Your task to perform on an android device: delete a single message in the gmail app Image 0: 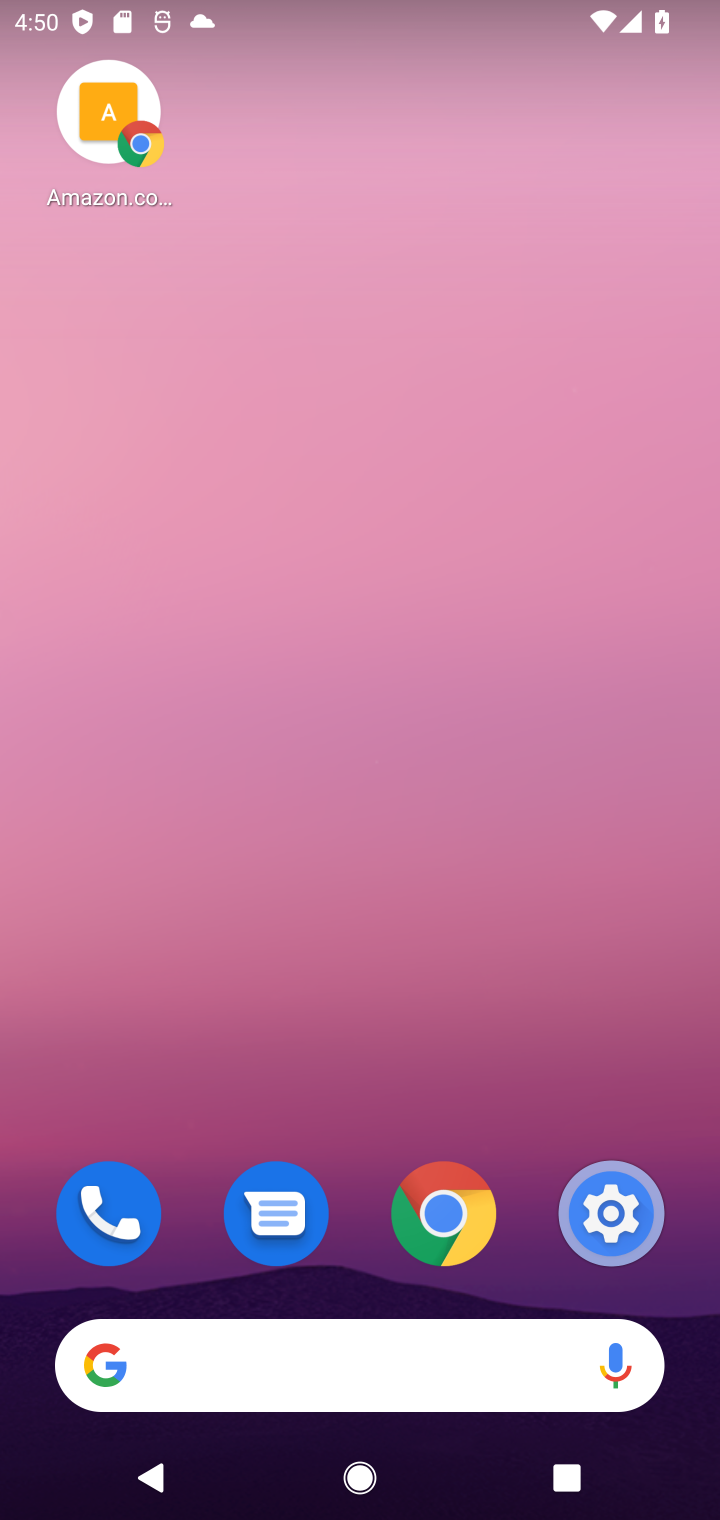
Step 0: drag from (354, 1368) to (397, 278)
Your task to perform on an android device: delete a single message in the gmail app Image 1: 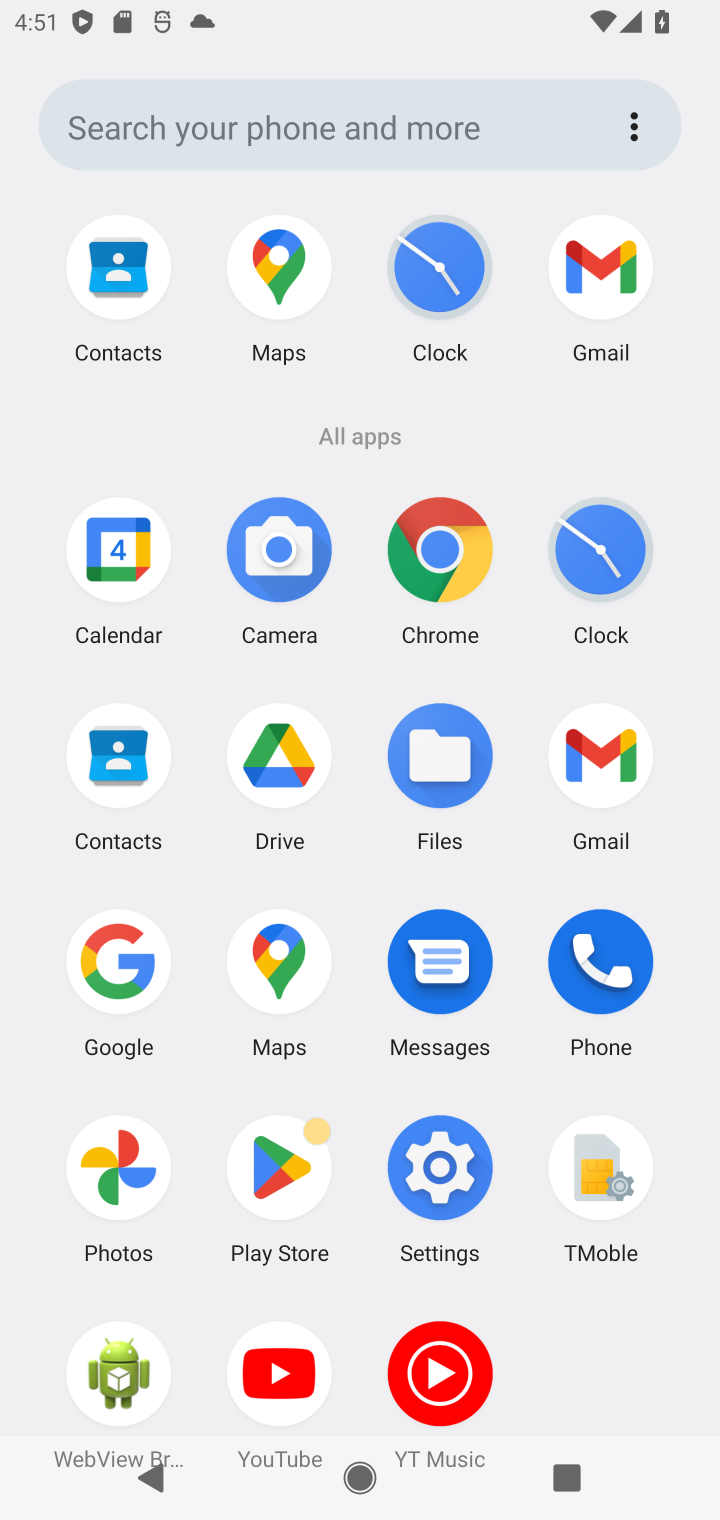
Step 1: click (593, 271)
Your task to perform on an android device: delete a single message in the gmail app Image 2: 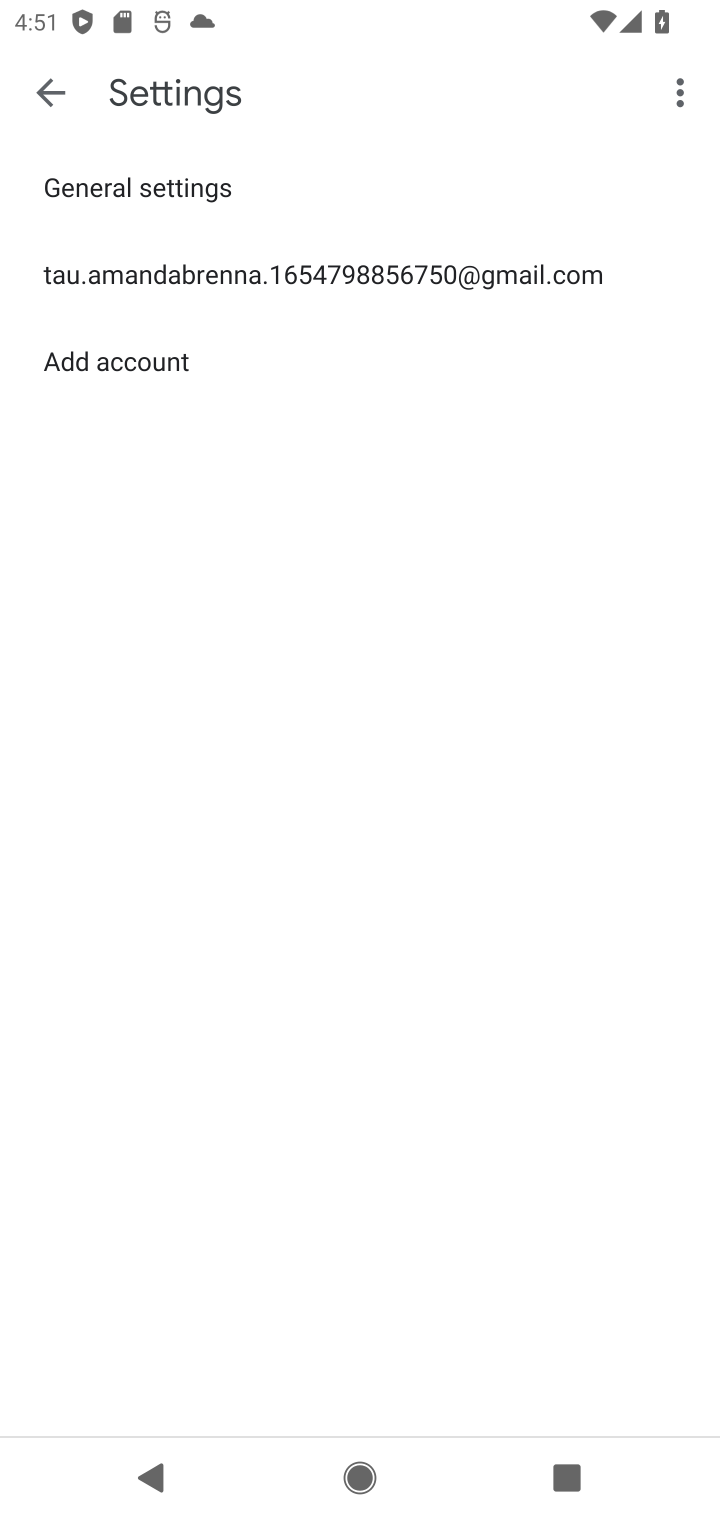
Step 2: press back button
Your task to perform on an android device: delete a single message in the gmail app Image 3: 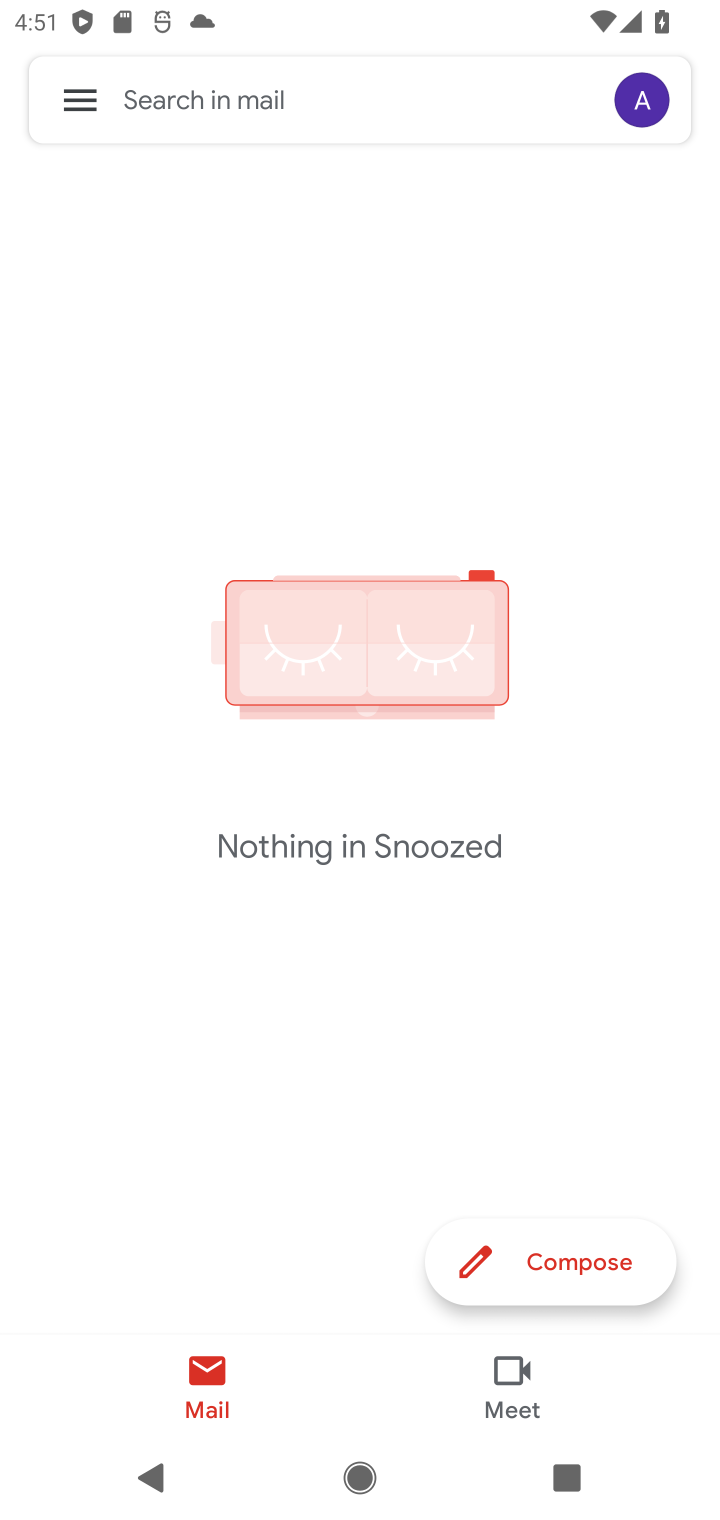
Step 3: click (73, 112)
Your task to perform on an android device: delete a single message in the gmail app Image 4: 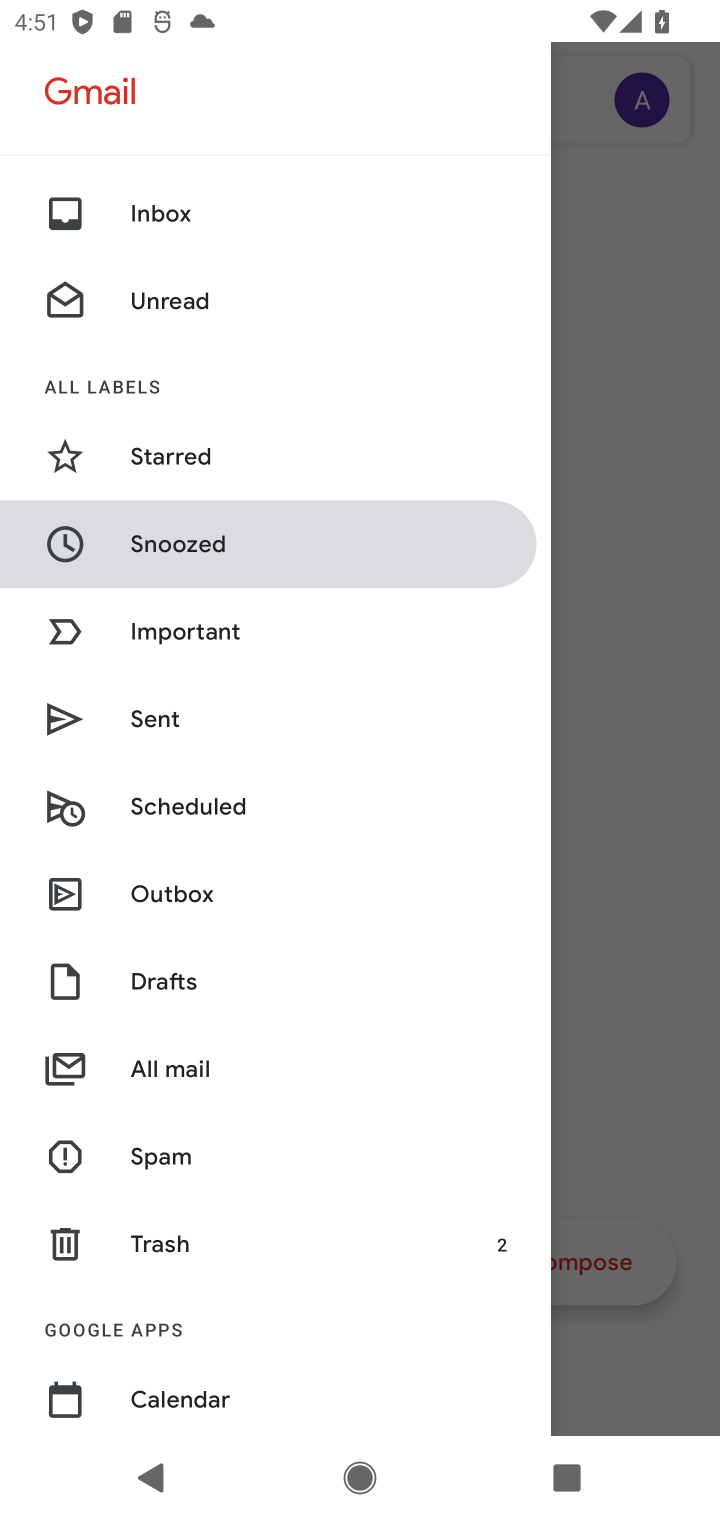
Step 4: click (157, 236)
Your task to perform on an android device: delete a single message in the gmail app Image 5: 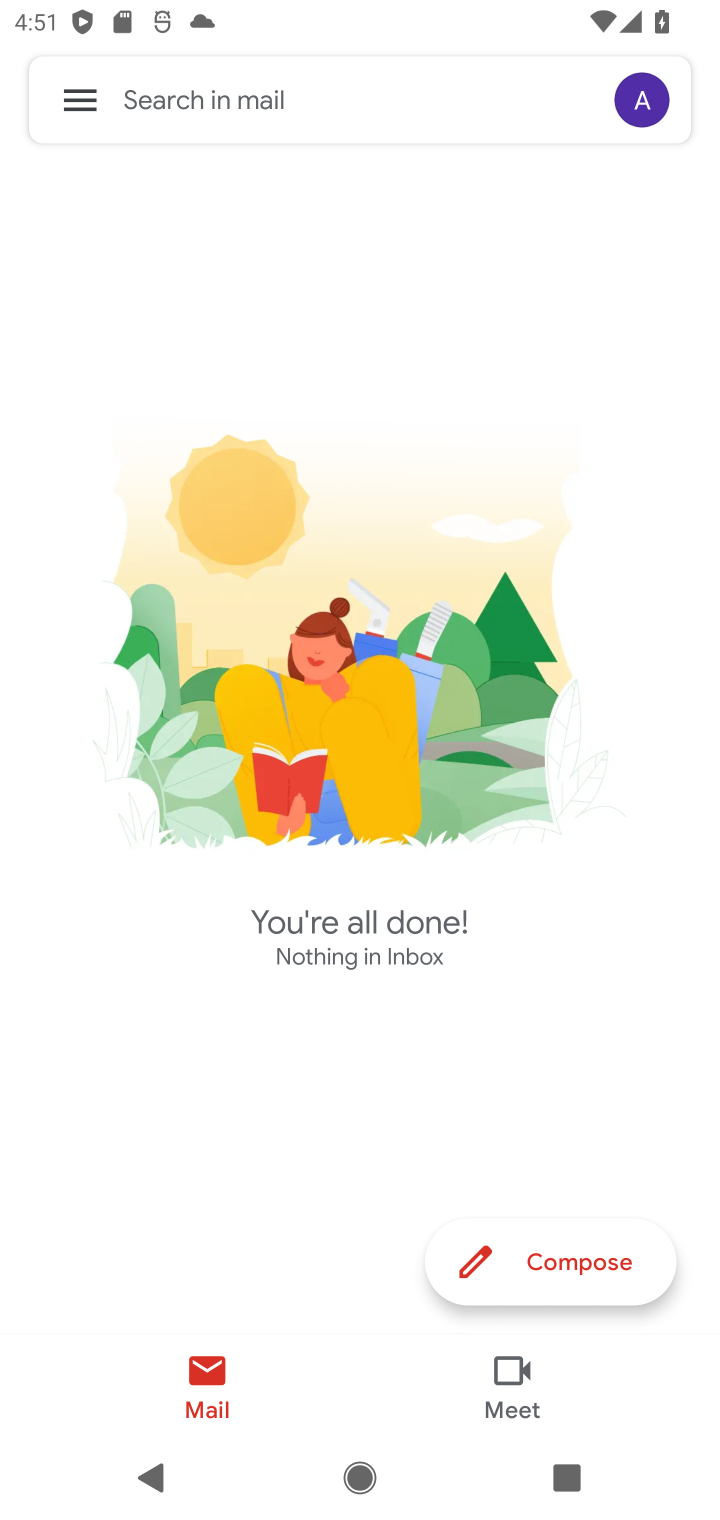
Step 5: click (92, 102)
Your task to perform on an android device: delete a single message in the gmail app Image 6: 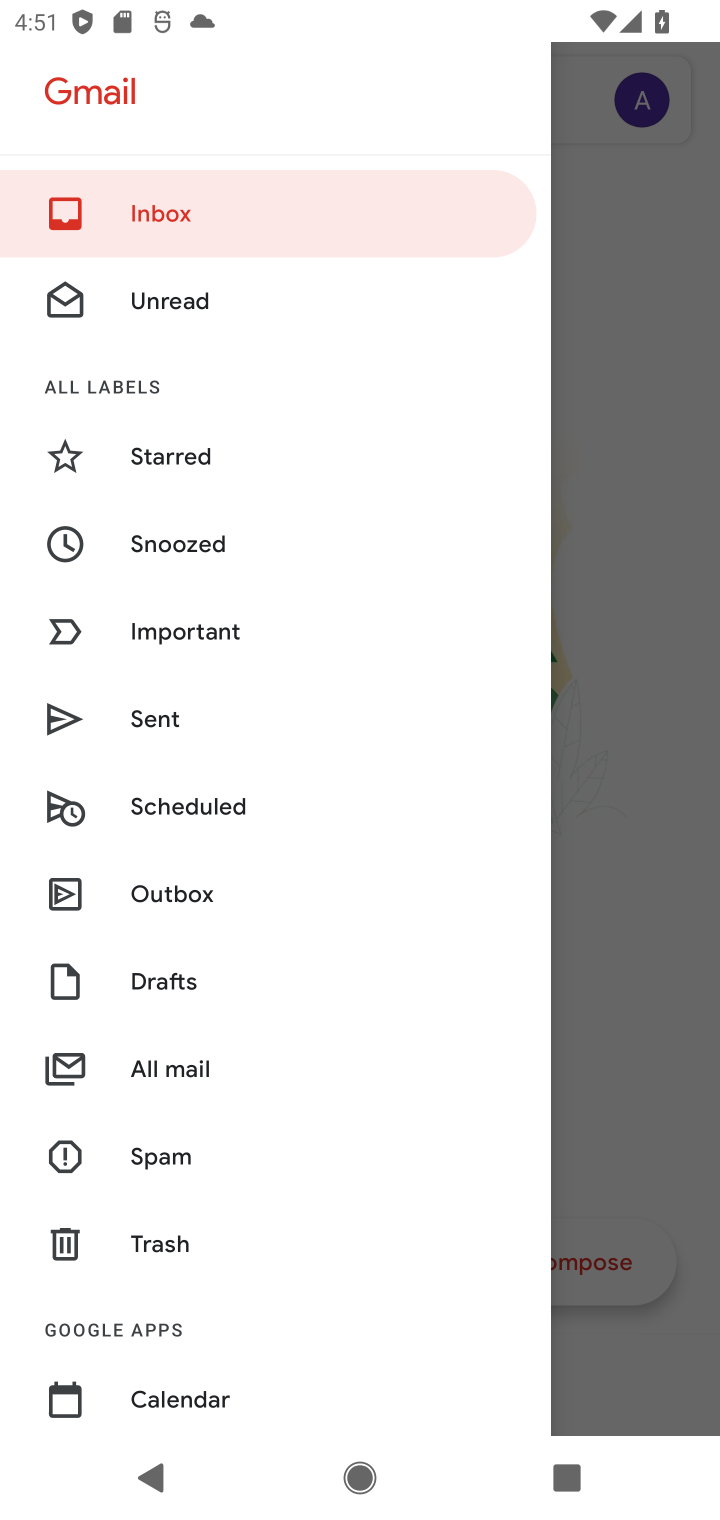
Step 6: click (210, 474)
Your task to perform on an android device: delete a single message in the gmail app Image 7: 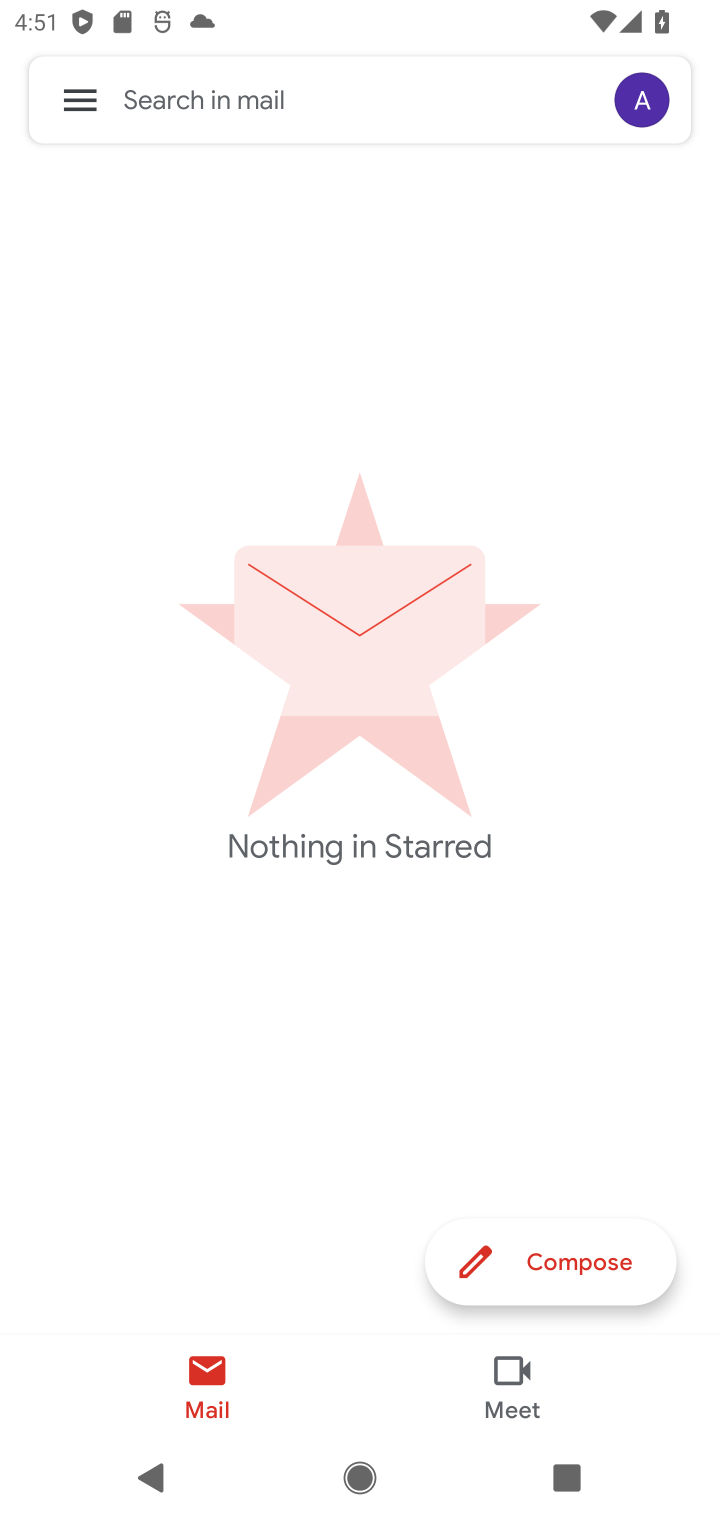
Step 7: click (95, 84)
Your task to perform on an android device: delete a single message in the gmail app Image 8: 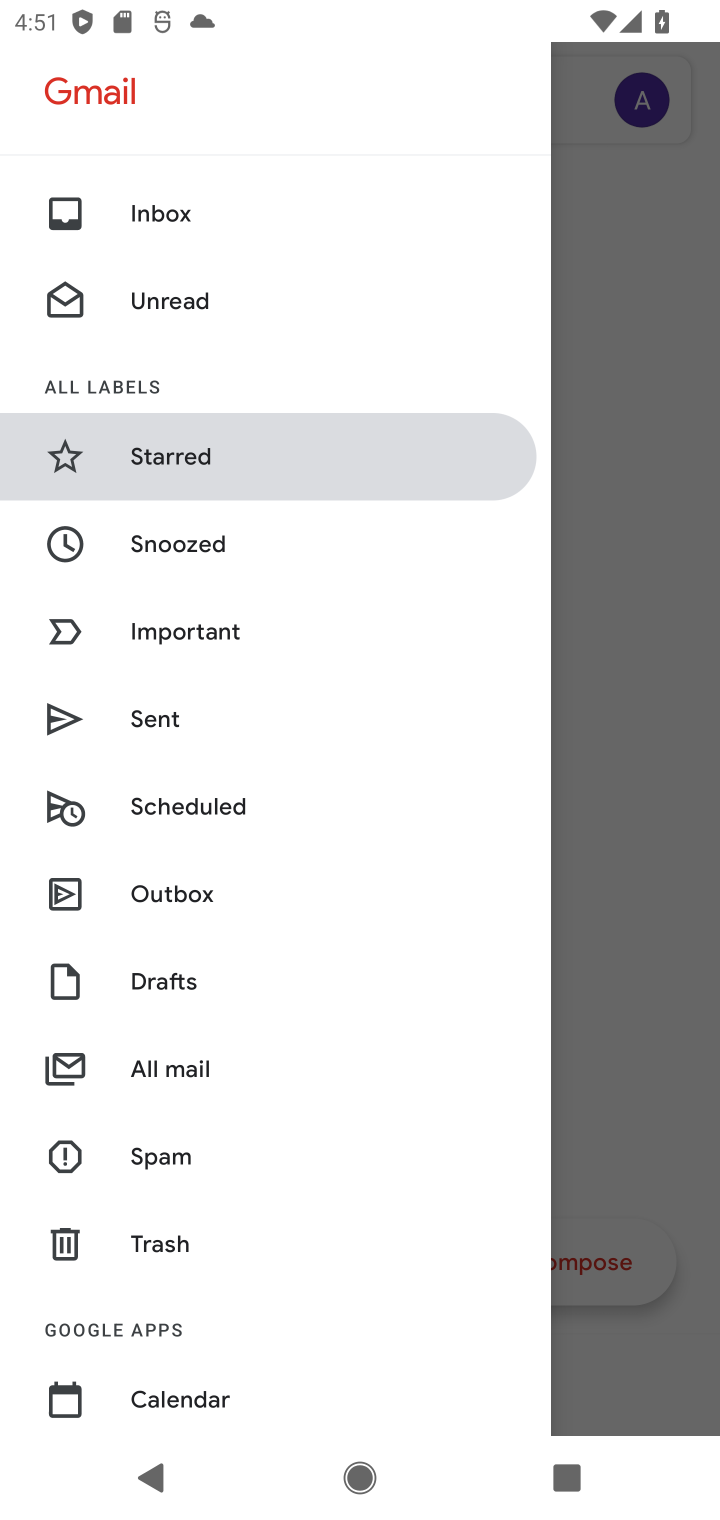
Step 8: click (193, 295)
Your task to perform on an android device: delete a single message in the gmail app Image 9: 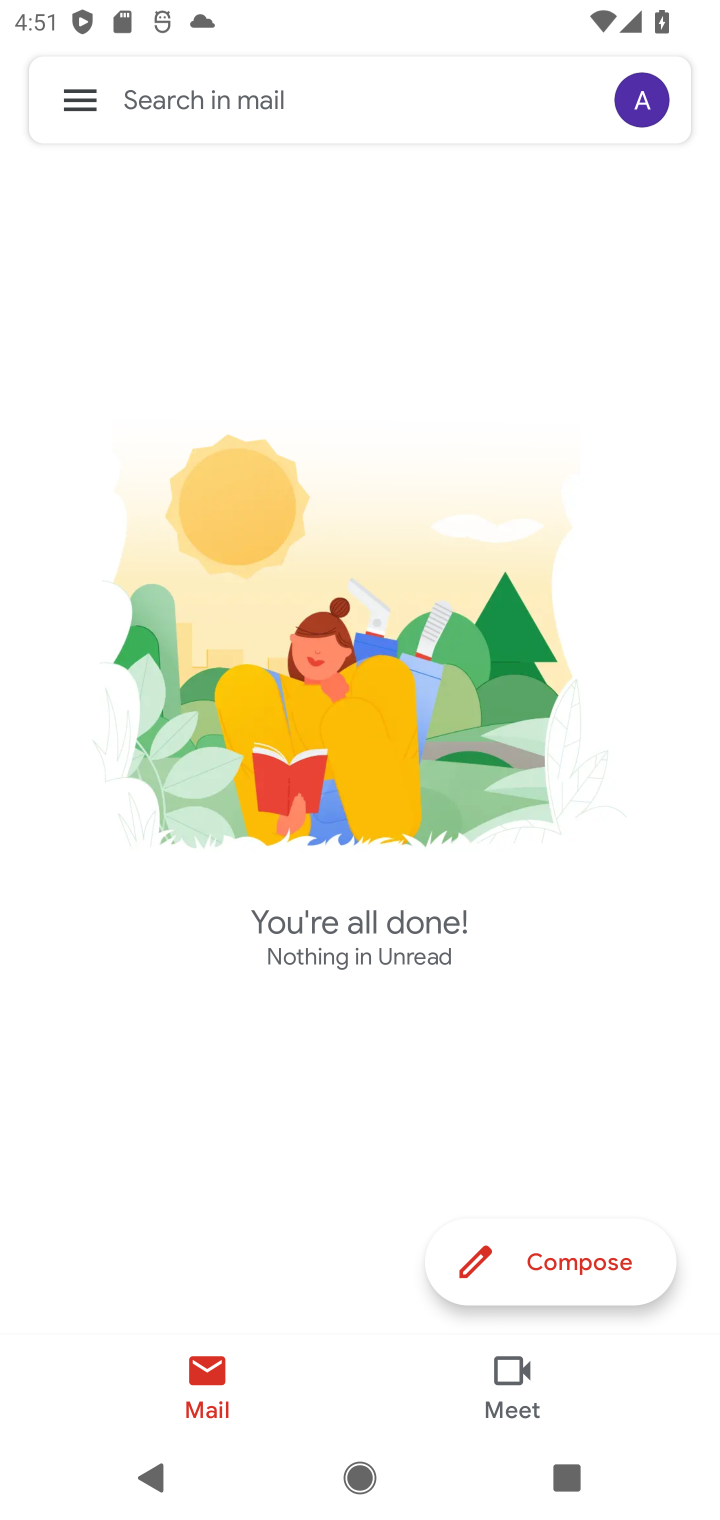
Step 9: click (83, 105)
Your task to perform on an android device: delete a single message in the gmail app Image 10: 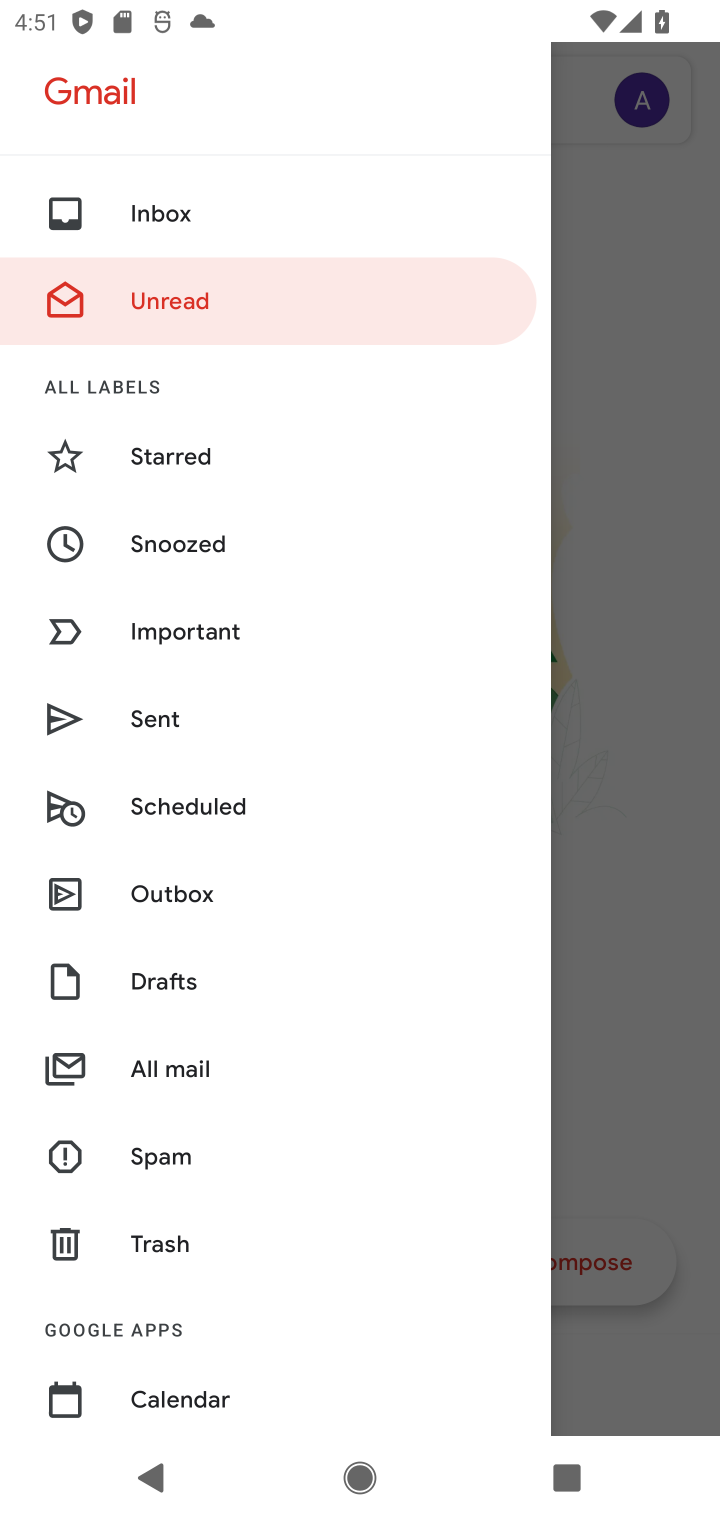
Step 10: click (184, 553)
Your task to perform on an android device: delete a single message in the gmail app Image 11: 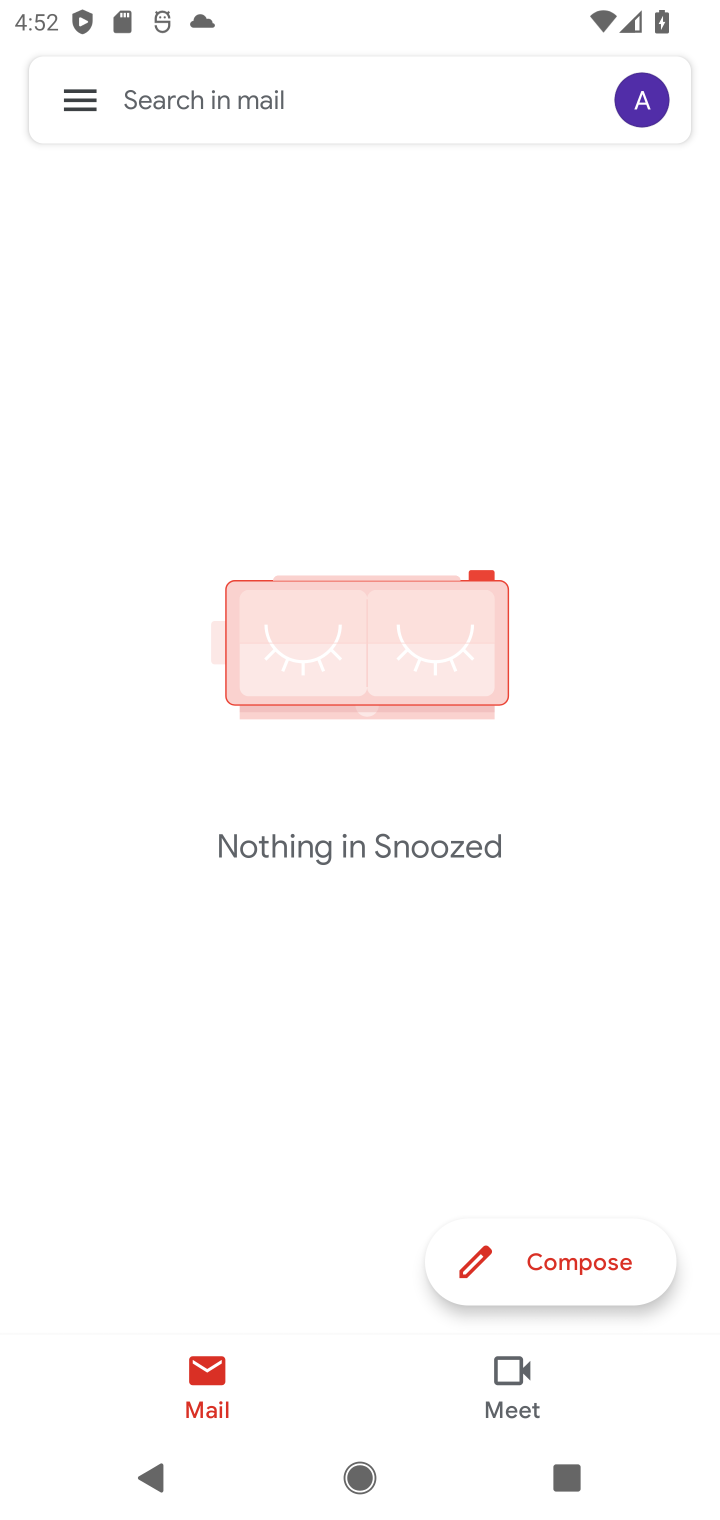
Step 11: click (89, 100)
Your task to perform on an android device: delete a single message in the gmail app Image 12: 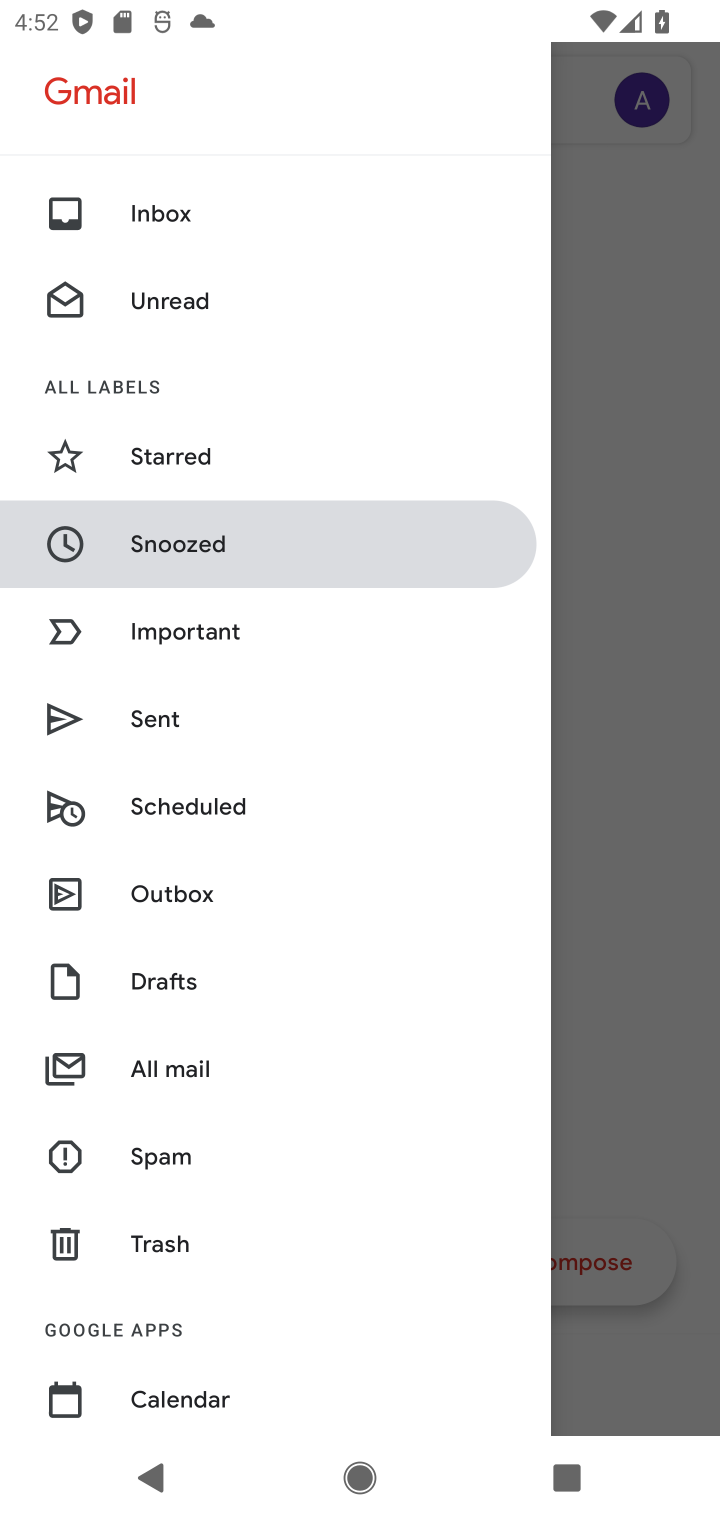
Step 12: click (224, 641)
Your task to perform on an android device: delete a single message in the gmail app Image 13: 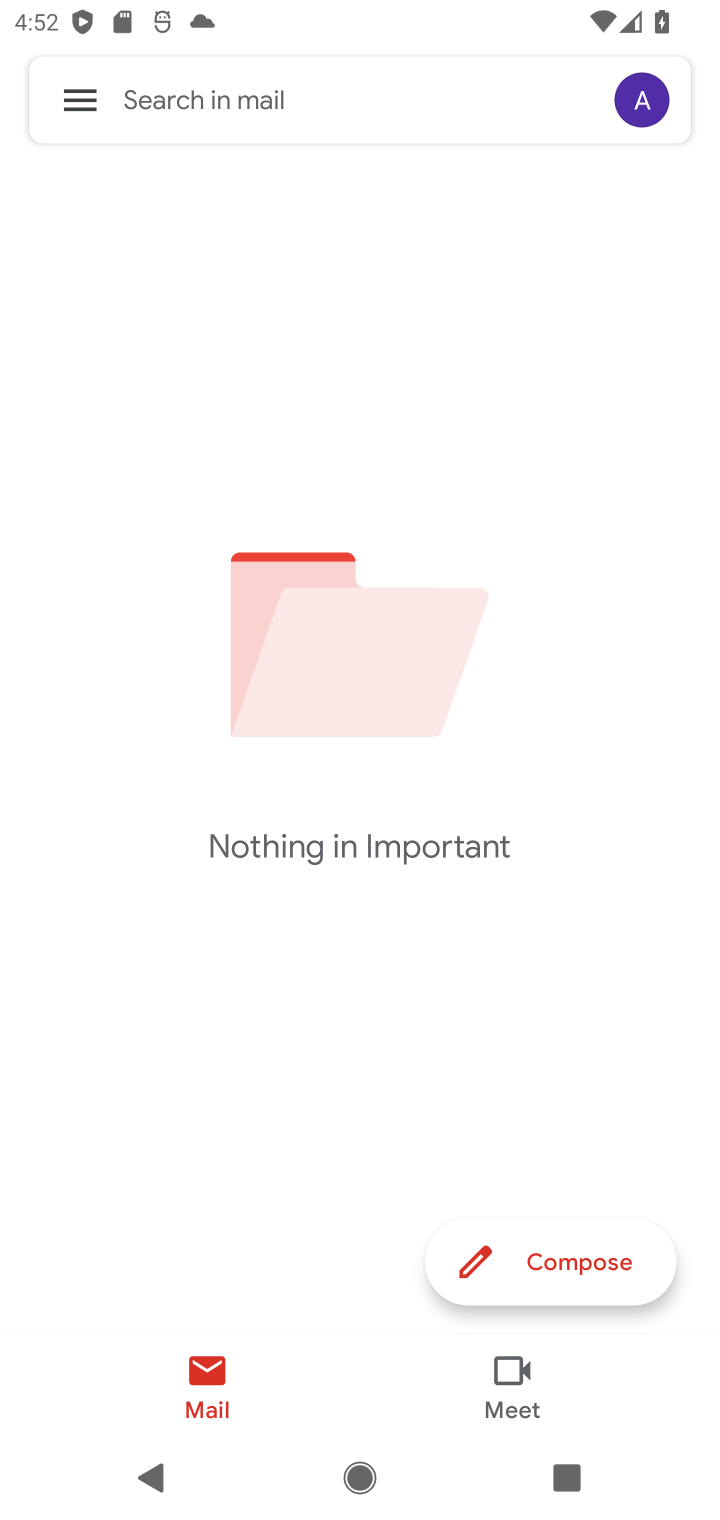
Step 13: click (74, 102)
Your task to perform on an android device: delete a single message in the gmail app Image 14: 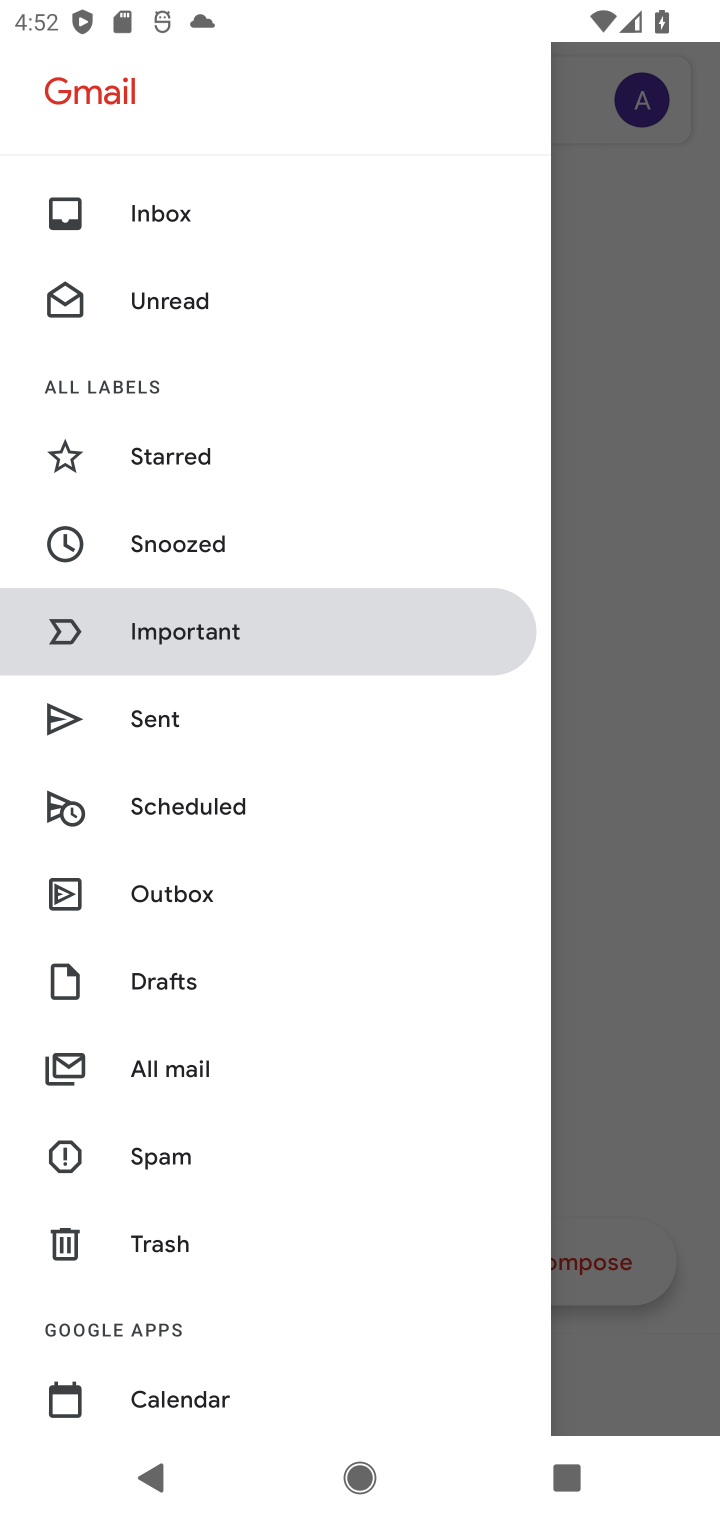
Step 14: click (180, 713)
Your task to perform on an android device: delete a single message in the gmail app Image 15: 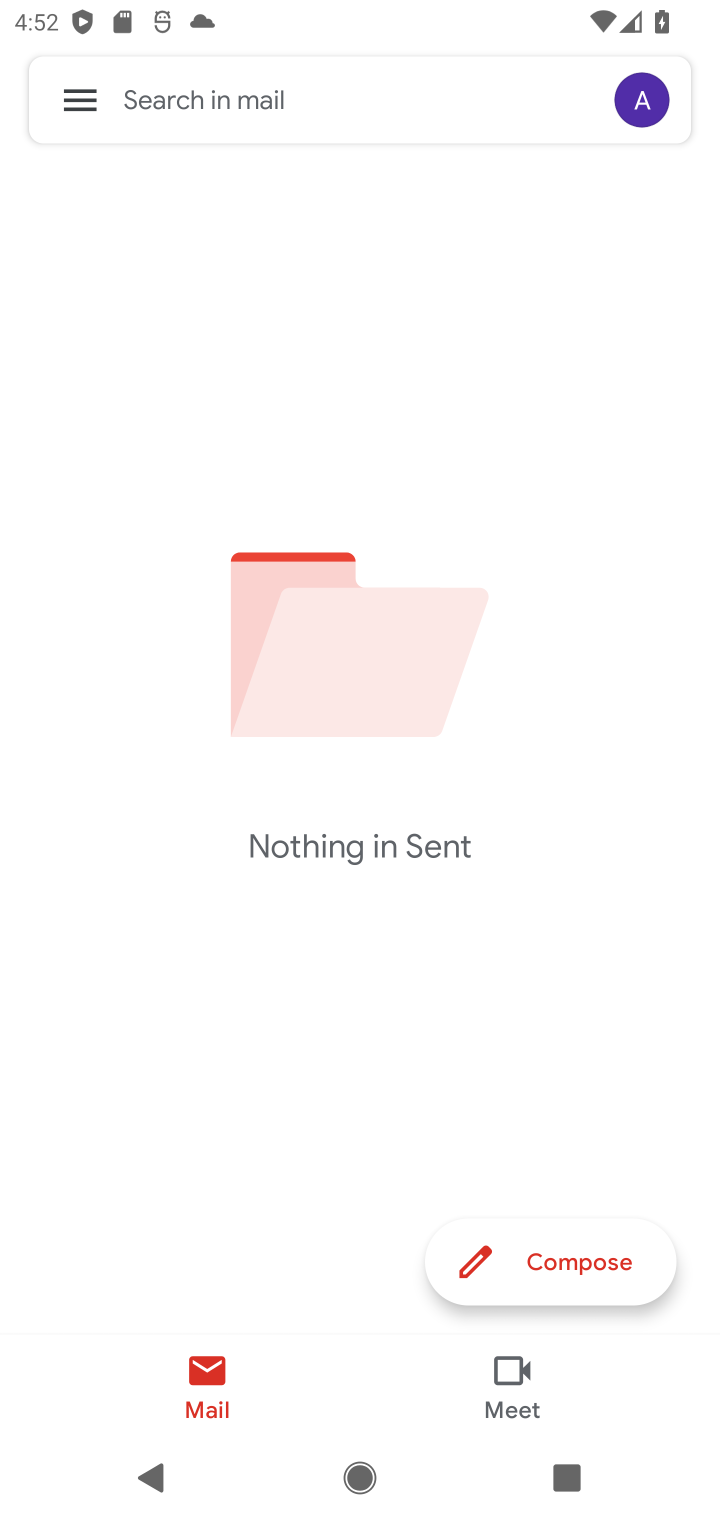
Step 15: click (67, 118)
Your task to perform on an android device: delete a single message in the gmail app Image 16: 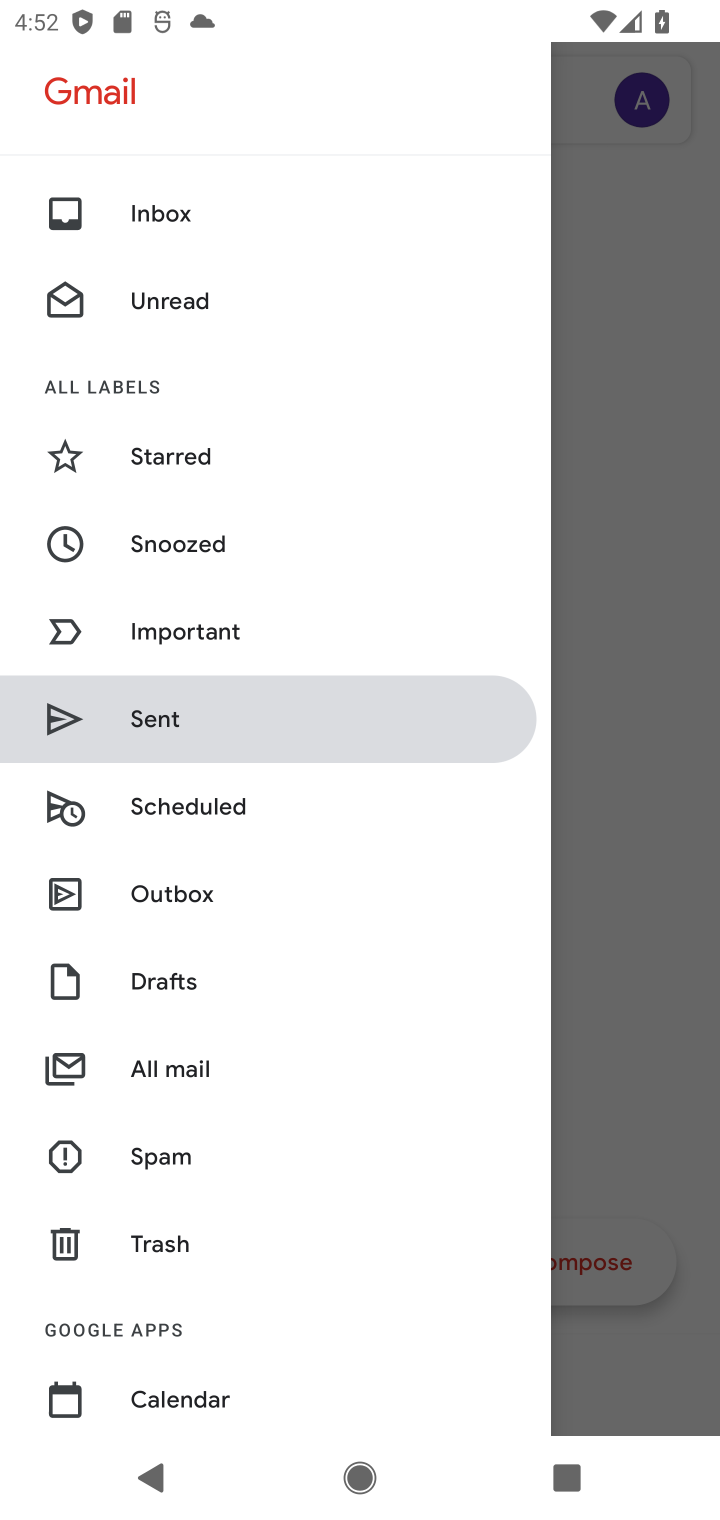
Step 16: click (236, 829)
Your task to perform on an android device: delete a single message in the gmail app Image 17: 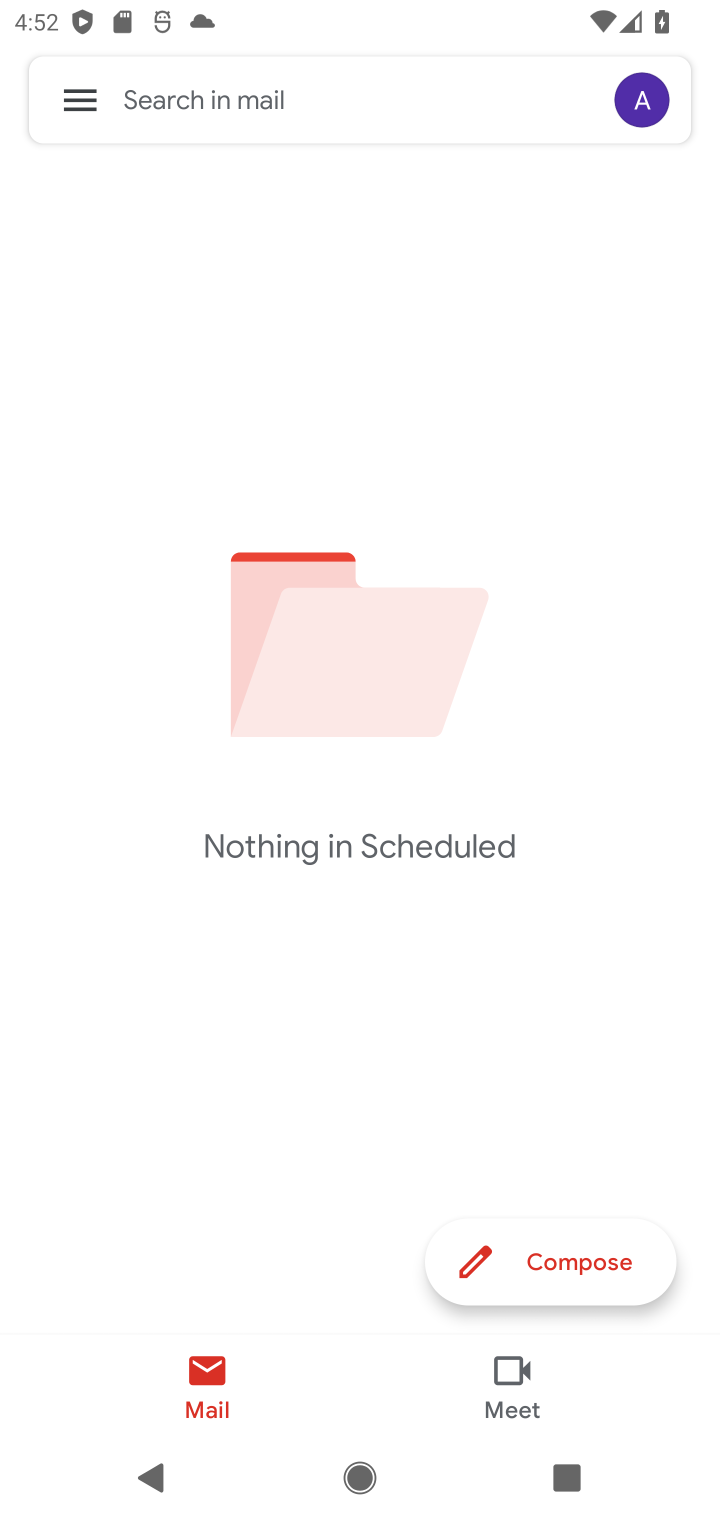
Step 17: click (84, 113)
Your task to perform on an android device: delete a single message in the gmail app Image 18: 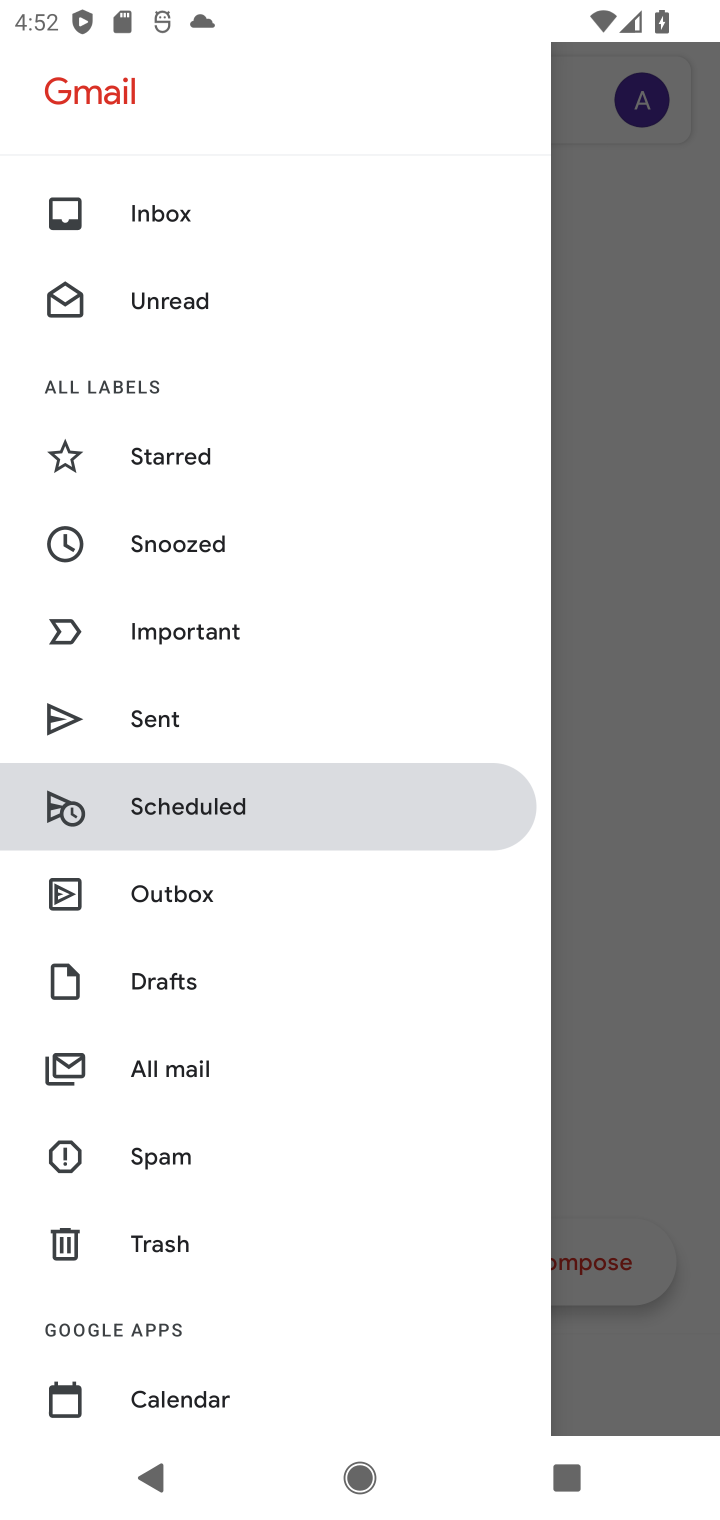
Step 18: click (114, 885)
Your task to perform on an android device: delete a single message in the gmail app Image 19: 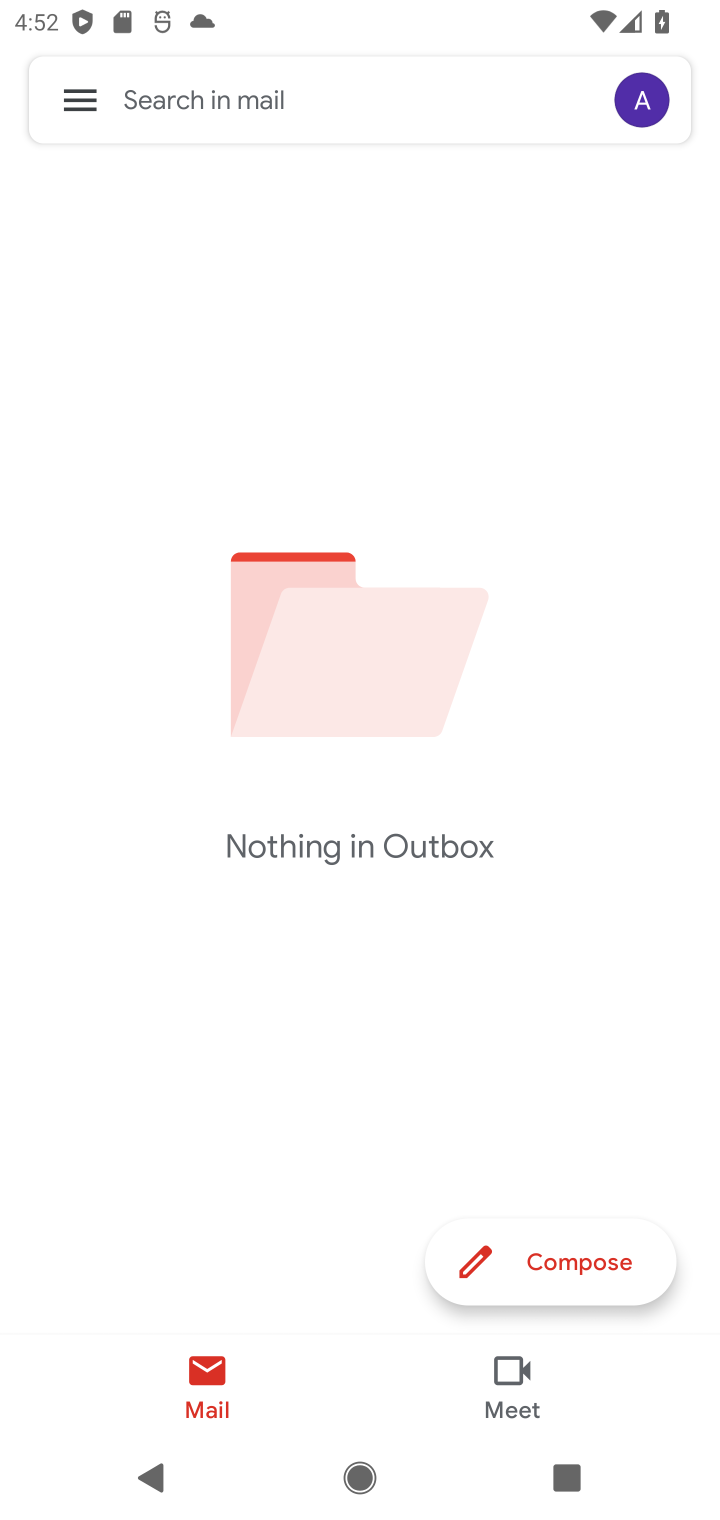
Step 19: click (69, 100)
Your task to perform on an android device: delete a single message in the gmail app Image 20: 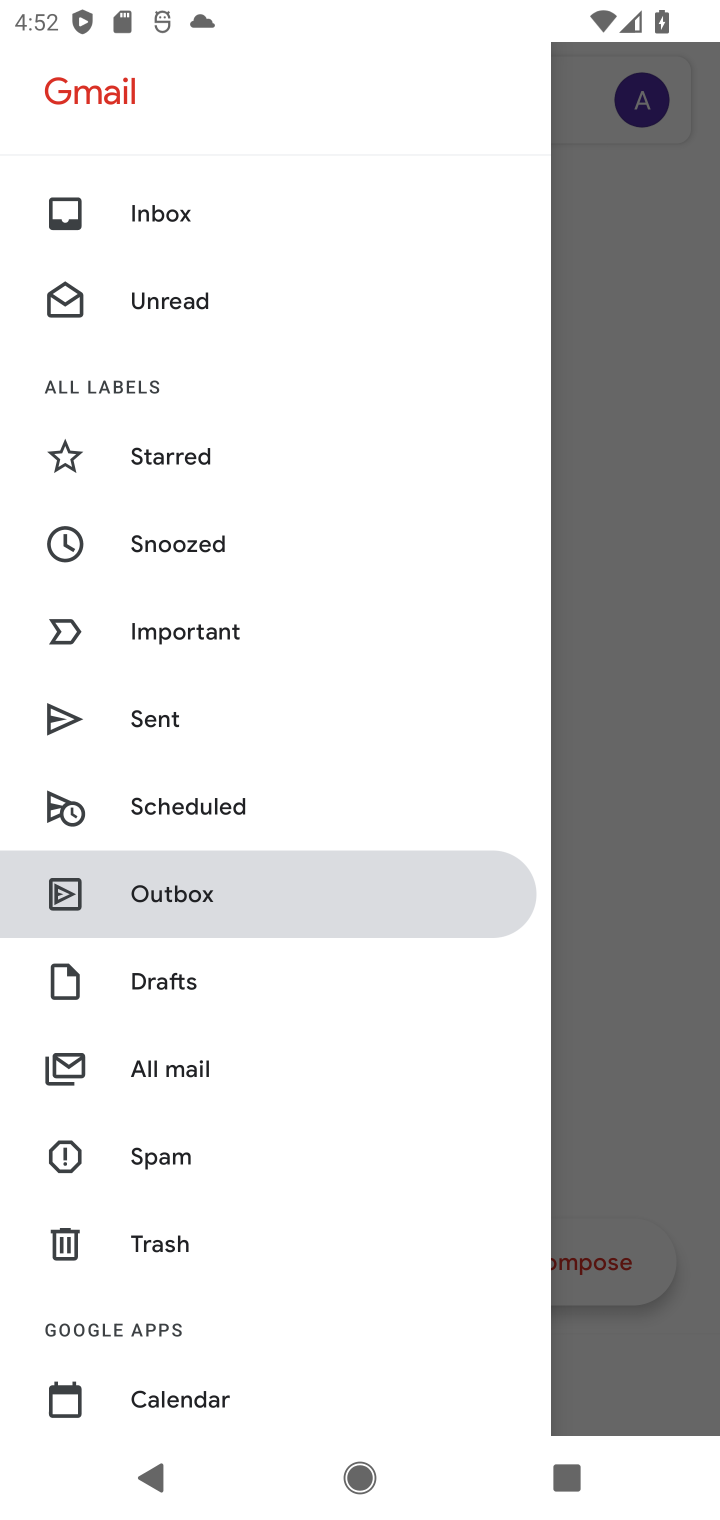
Step 20: click (191, 997)
Your task to perform on an android device: delete a single message in the gmail app Image 21: 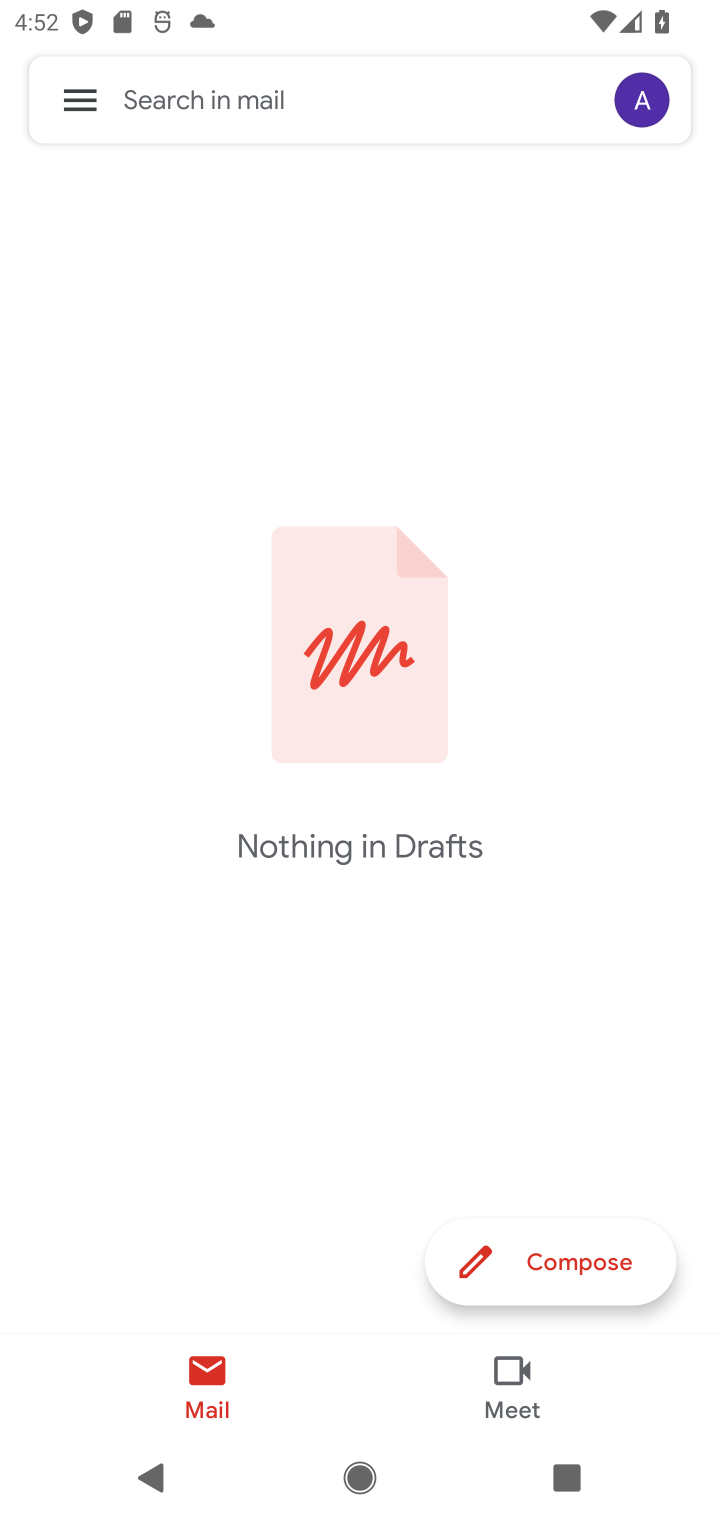
Step 21: click (74, 115)
Your task to perform on an android device: delete a single message in the gmail app Image 22: 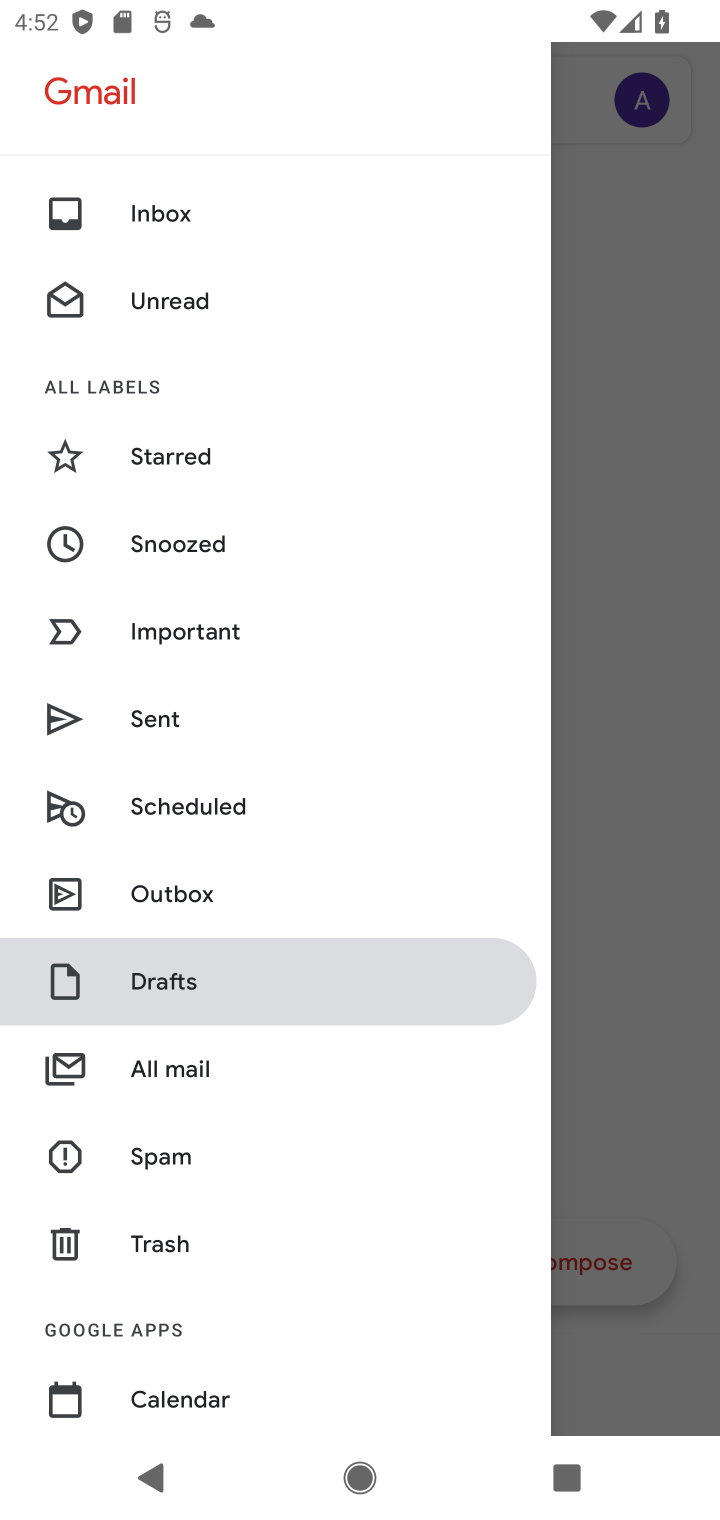
Step 22: click (194, 1103)
Your task to perform on an android device: delete a single message in the gmail app Image 23: 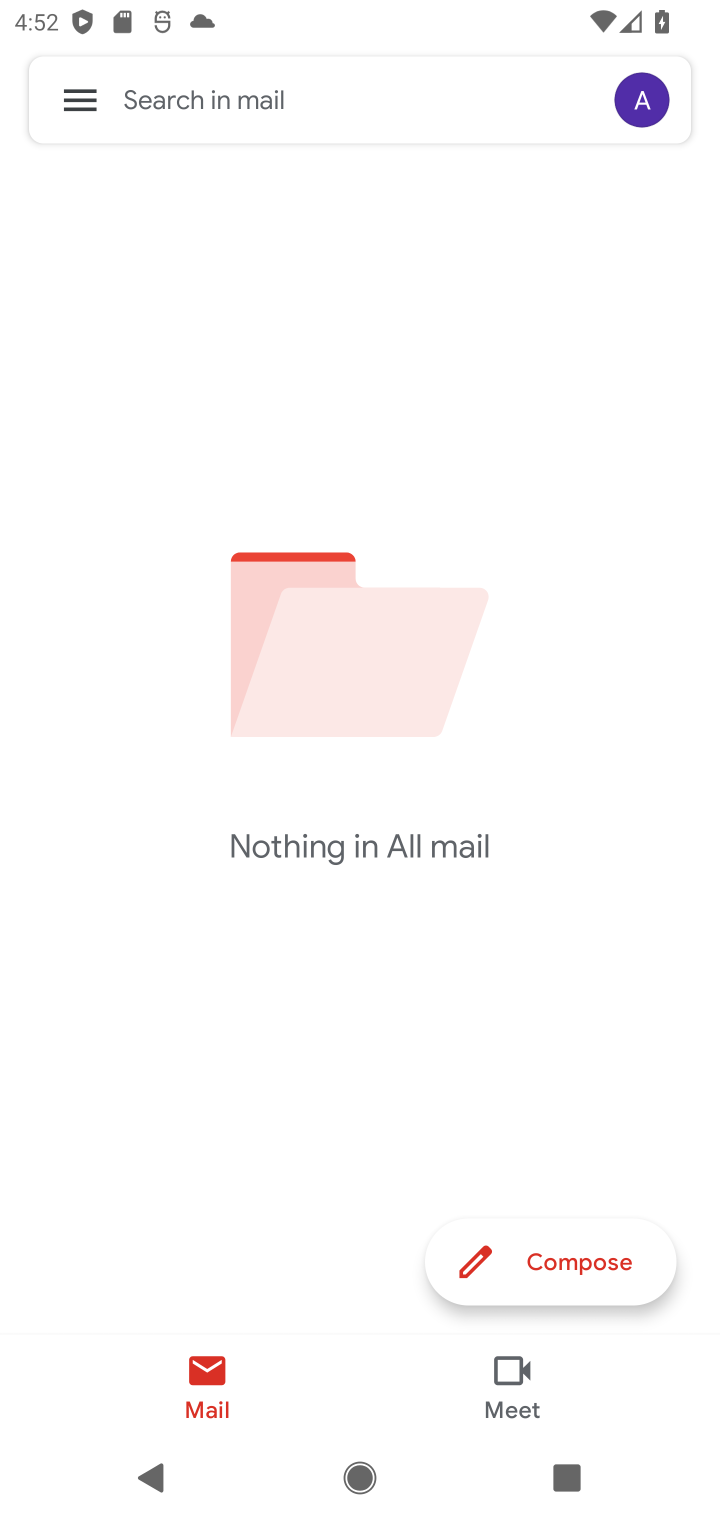
Step 23: task complete